Your task to perform on an android device: change the clock style Image 0: 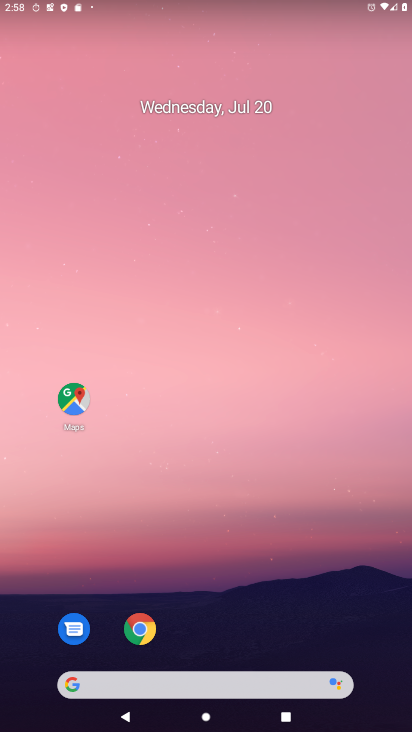
Step 0: drag from (228, 643) to (282, 43)
Your task to perform on an android device: change the clock style Image 1: 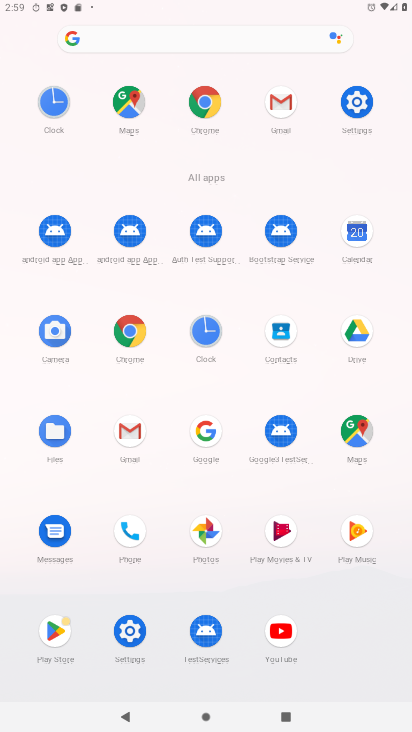
Step 1: click (207, 324)
Your task to perform on an android device: change the clock style Image 2: 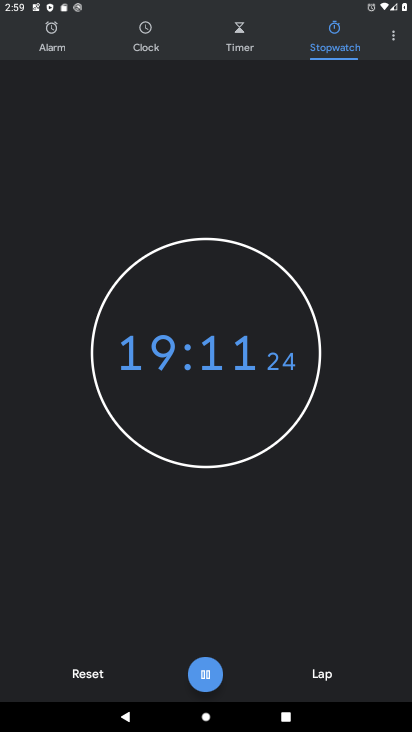
Step 2: click (85, 672)
Your task to perform on an android device: change the clock style Image 3: 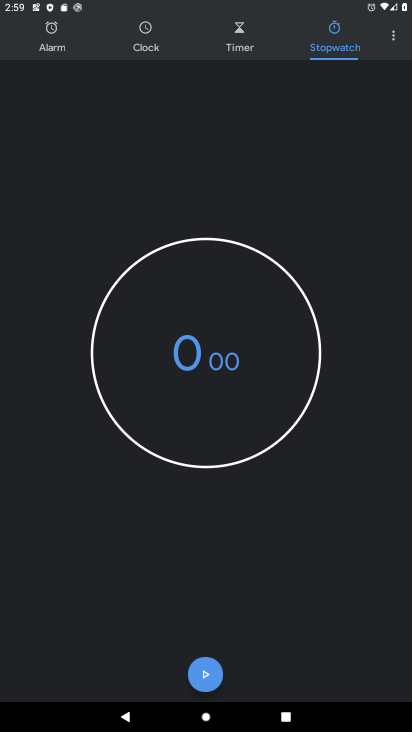
Step 3: click (394, 38)
Your task to perform on an android device: change the clock style Image 4: 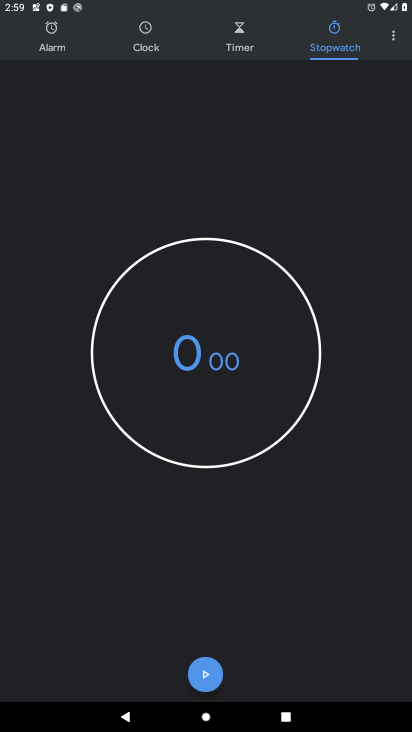
Step 4: click (395, 35)
Your task to perform on an android device: change the clock style Image 5: 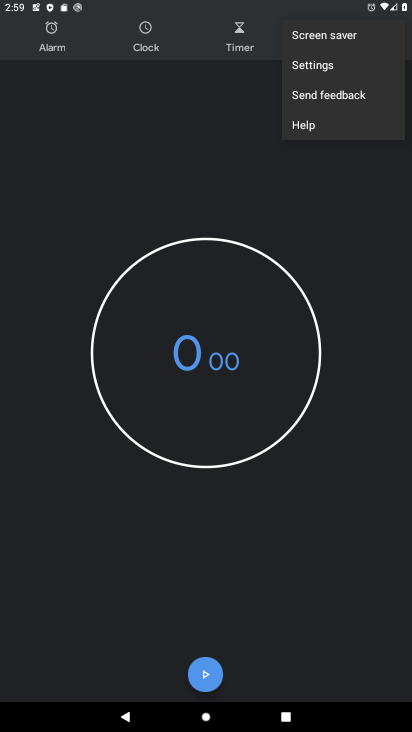
Step 5: click (336, 60)
Your task to perform on an android device: change the clock style Image 6: 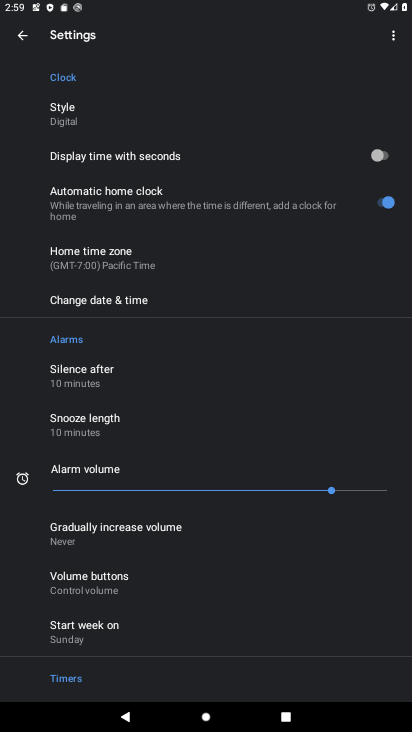
Step 6: click (92, 114)
Your task to perform on an android device: change the clock style Image 7: 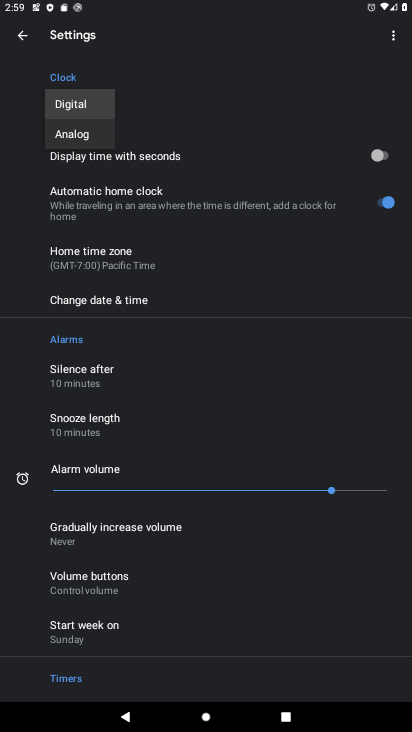
Step 7: click (94, 134)
Your task to perform on an android device: change the clock style Image 8: 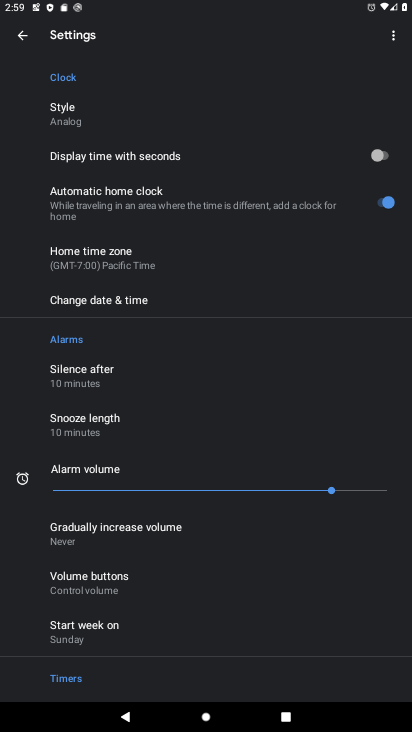
Step 8: task complete